Your task to perform on an android device: toggle sleep mode Image 0: 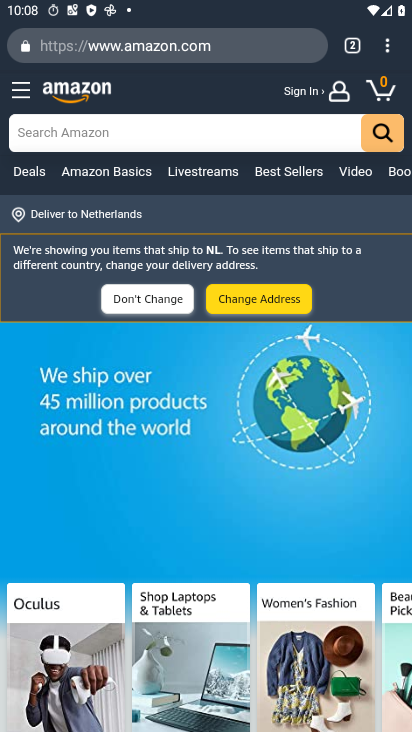
Step 0: press home button
Your task to perform on an android device: toggle sleep mode Image 1: 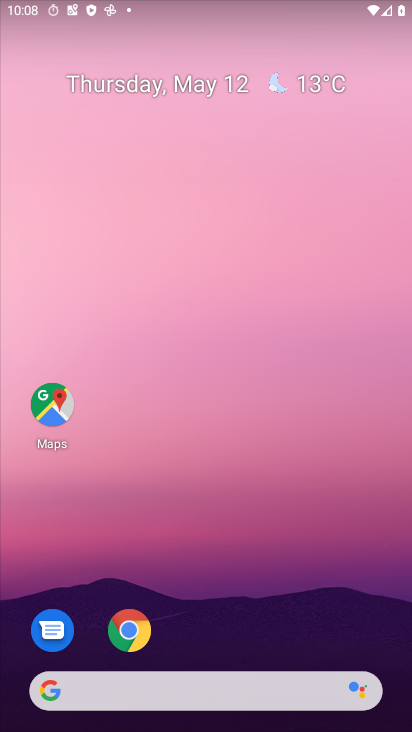
Step 1: drag from (237, 696) to (258, 139)
Your task to perform on an android device: toggle sleep mode Image 2: 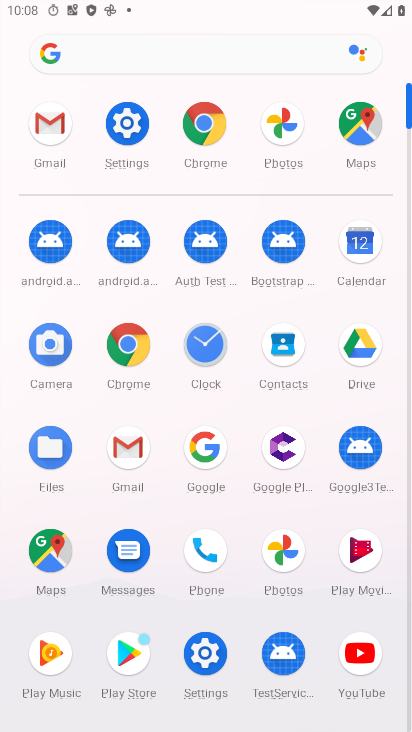
Step 2: click (206, 651)
Your task to perform on an android device: toggle sleep mode Image 3: 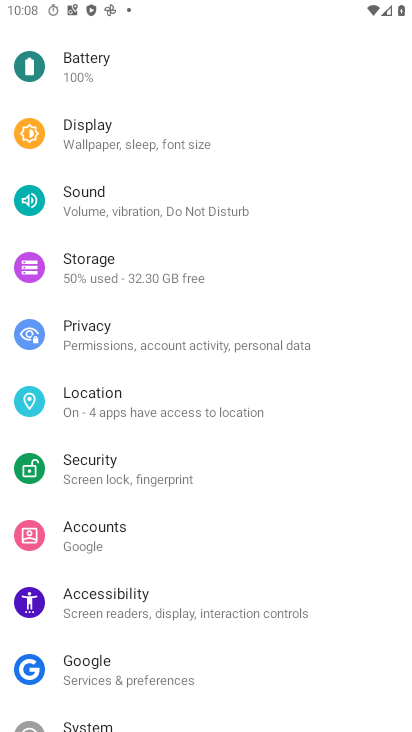
Step 3: click (108, 141)
Your task to perform on an android device: toggle sleep mode Image 4: 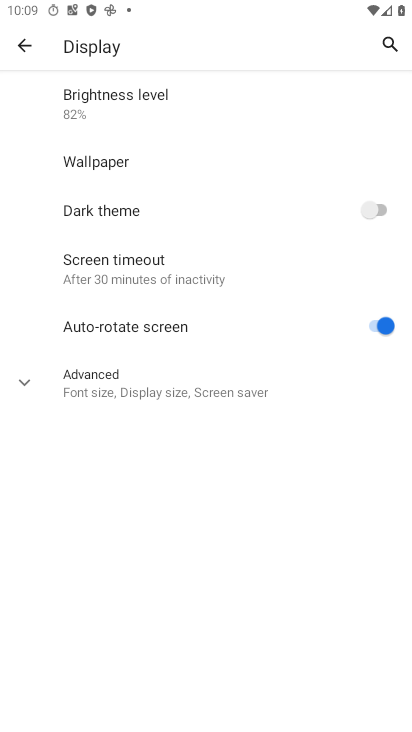
Step 4: click (164, 373)
Your task to perform on an android device: toggle sleep mode Image 5: 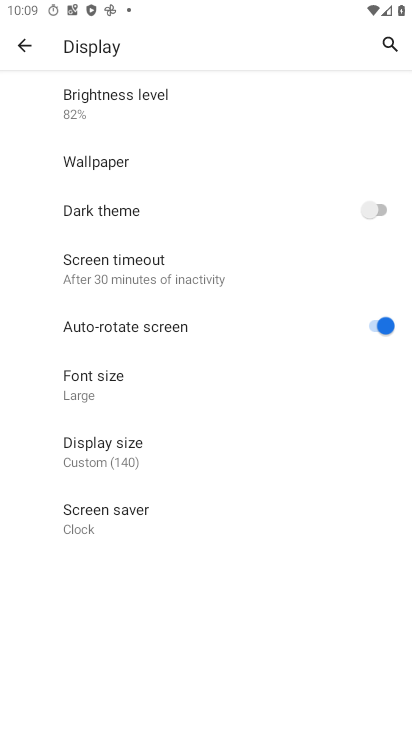
Step 5: task complete